Your task to perform on an android device: turn off location history Image 0: 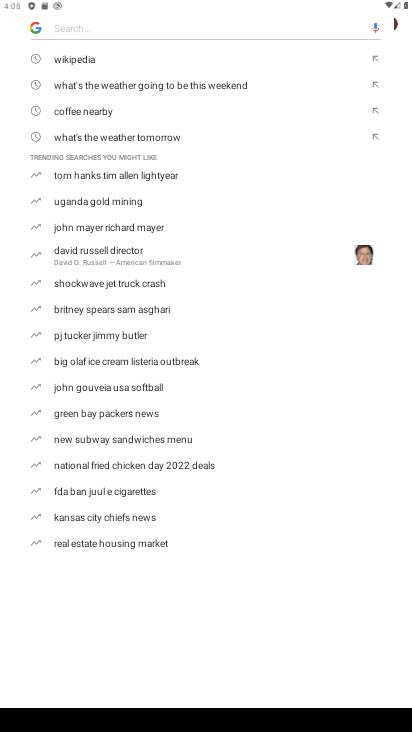
Step 0: press home button
Your task to perform on an android device: turn off location history Image 1: 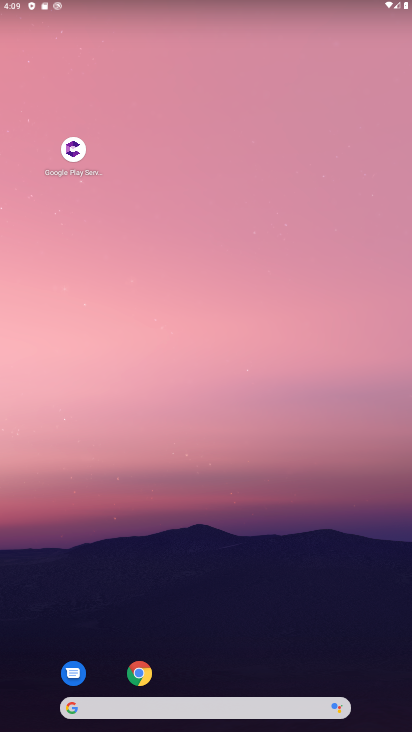
Step 1: drag from (314, 172) to (320, 95)
Your task to perform on an android device: turn off location history Image 2: 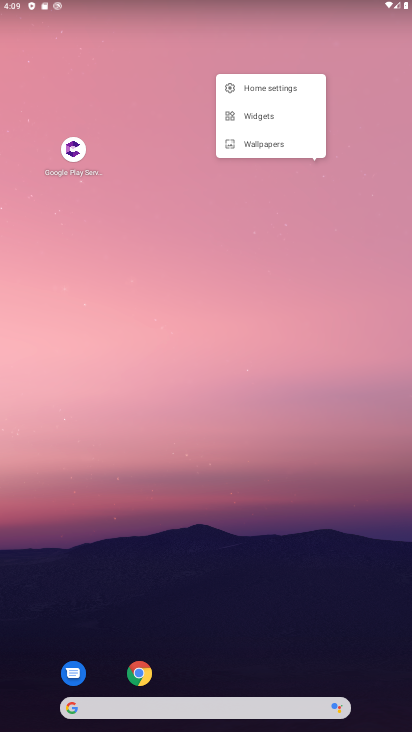
Step 2: drag from (304, 511) to (352, 198)
Your task to perform on an android device: turn off location history Image 3: 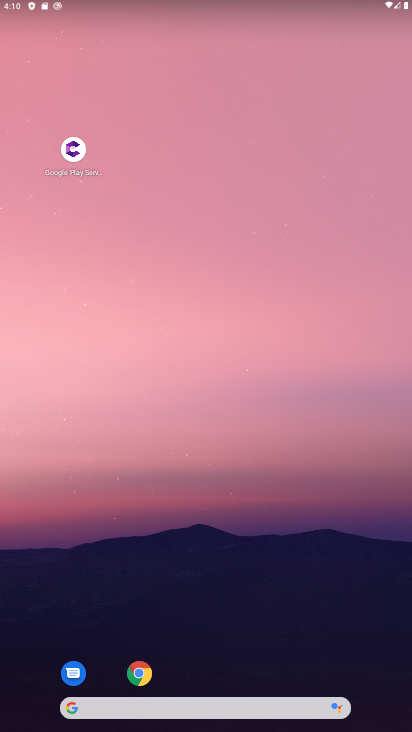
Step 3: drag from (248, 656) to (311, 248)
Your task to perform on an android device: turn off location history Image 4: 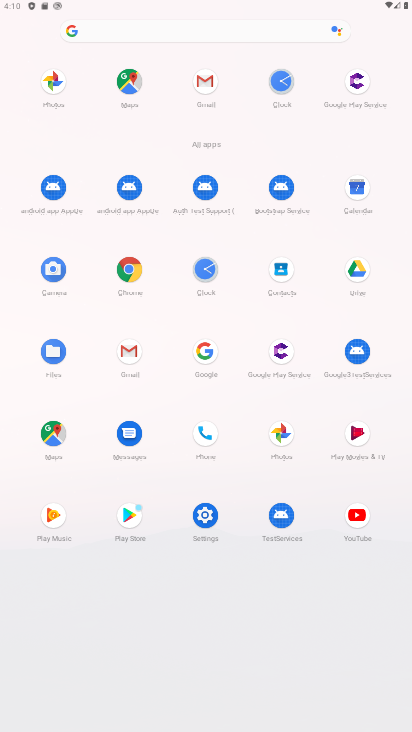
Step 4: drag from (191, 520) to (99, 366)
Your task to perform on an android device: turn off location history Image 5: 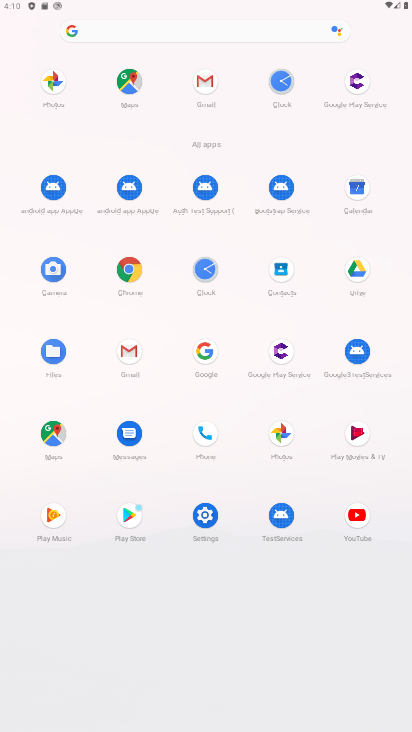
Step 5: click (195, 510)
Your task to perform on an android device: turn off location history Image 6: 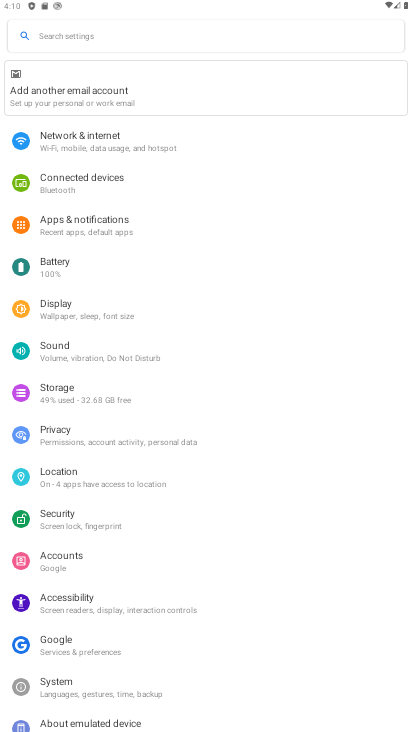
Step 6: click (96, 485)
Your task to perform on an android device: turn off location history Image 7: 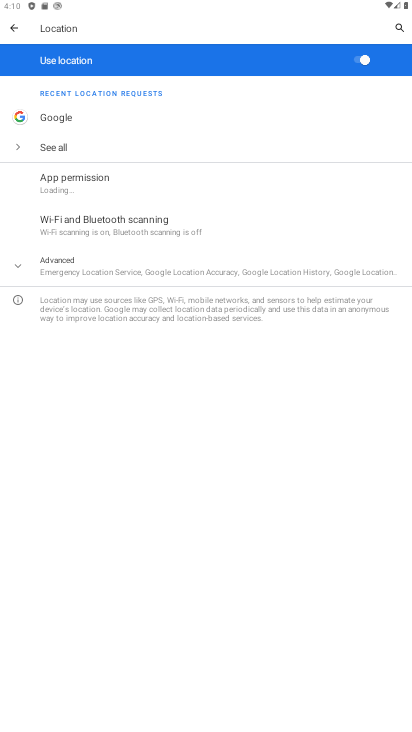
Step 7: click (157, 486)
Your task to perform on an android device: turn off location history Image 8: 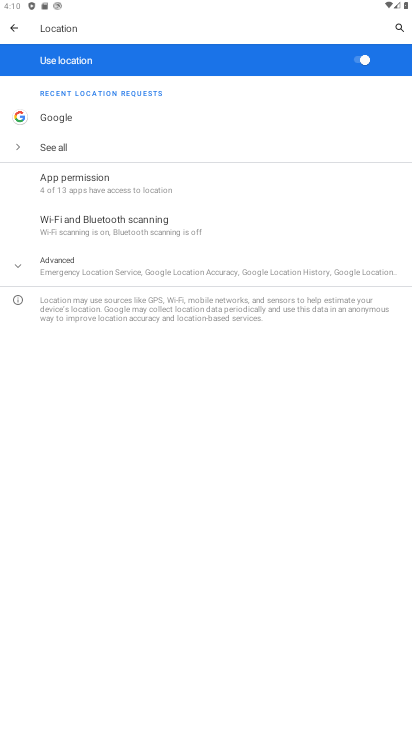
Step 8: click (364, 62)
Your task to perform on an android device: turn off location history Image 9: 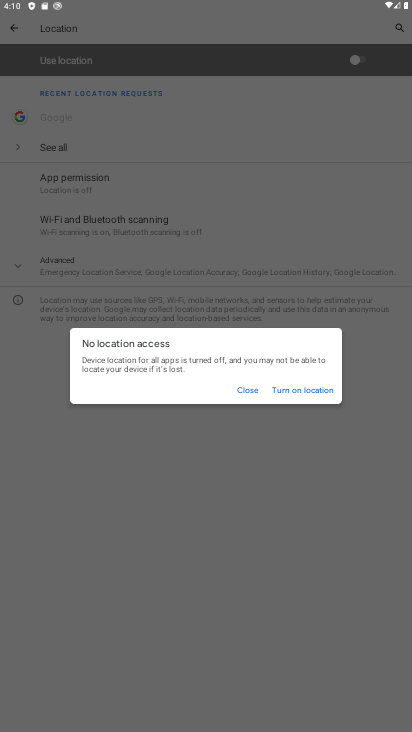
Step 9: task complete